Your task to perform on an android device: Open Chrome and go to settings Image 0: 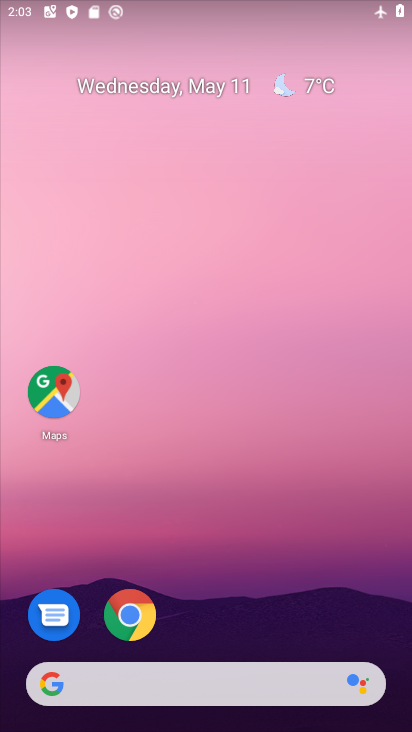
Step 0: click (130, 613)
Your task to perform on an android device: Open Chrome and go to settings Image 1: 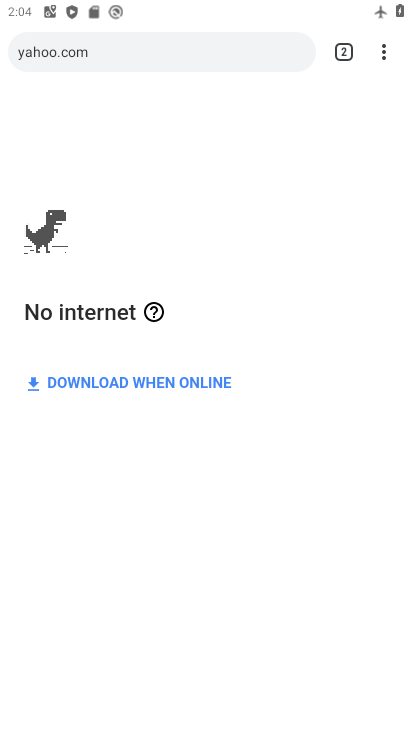
Step 1: task complete